Your task to perform on an android device: check android version Image 0: 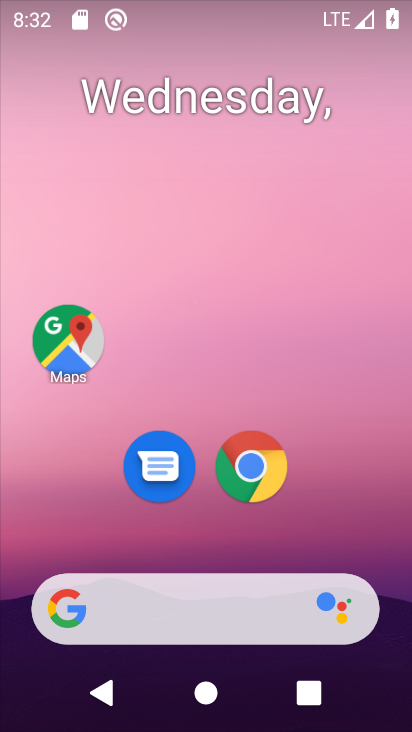
Step 0: drag from (221, 690) to (221, 144)
Your task to perform on an android device: check android version Image 1: 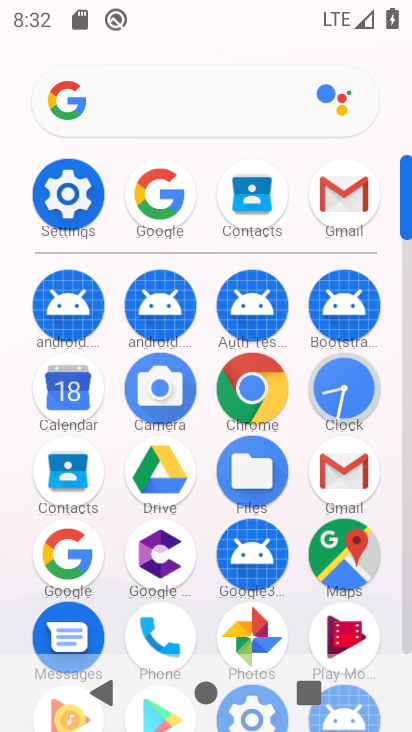
Step 1: click (69, 182)
Your task to perform on an android device: check android version Image 2: 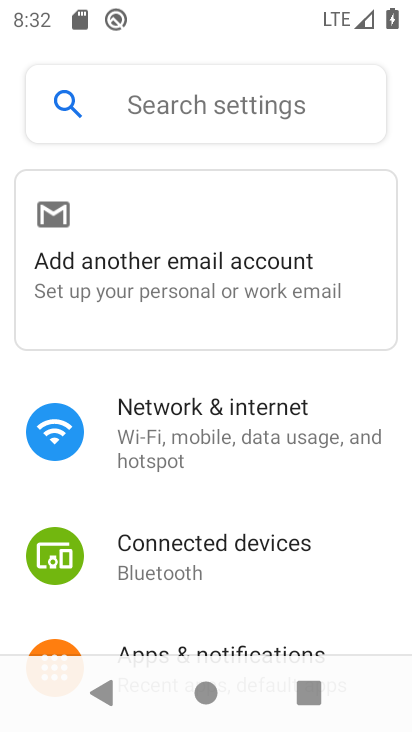
Step 2: drag from (233, 607) to (227, 272)
Your task to perform on an android device: check android version Image 3: 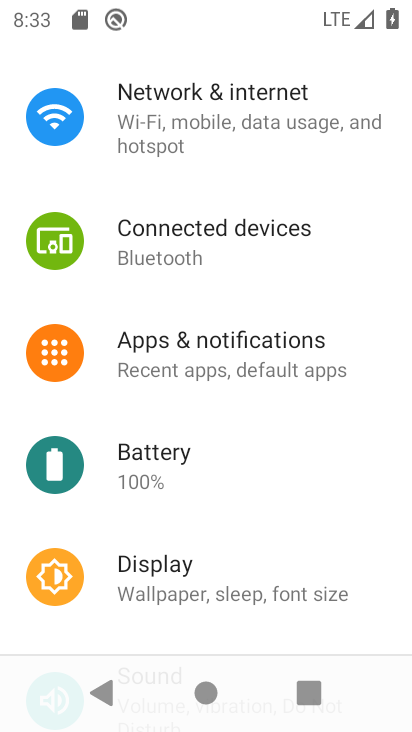
Step 3: drag from (263, 574) to (260, 279)
Your task to perform on an android device: check android version Image 4: 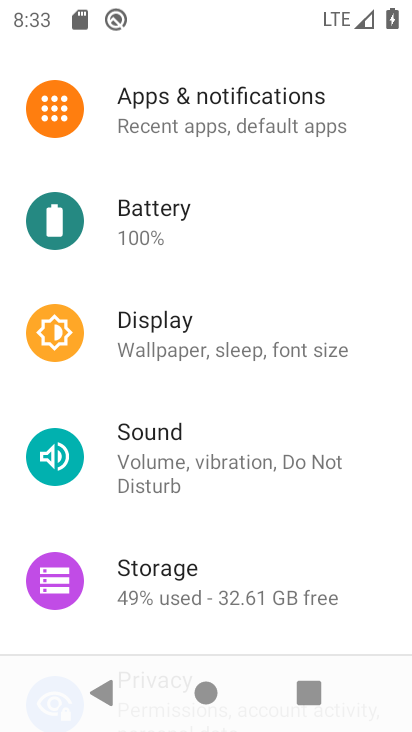
Step 4: drag from (227, 616) to (230, 203)
Your task to perform on an android device: check android version Image 5: 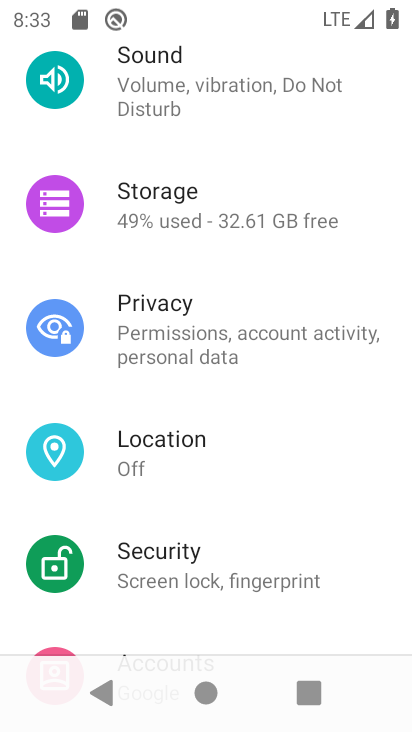
Step 5: drag from (192, 618) to (192, 257)
Your task to perform on an android device: check android version Image 6: 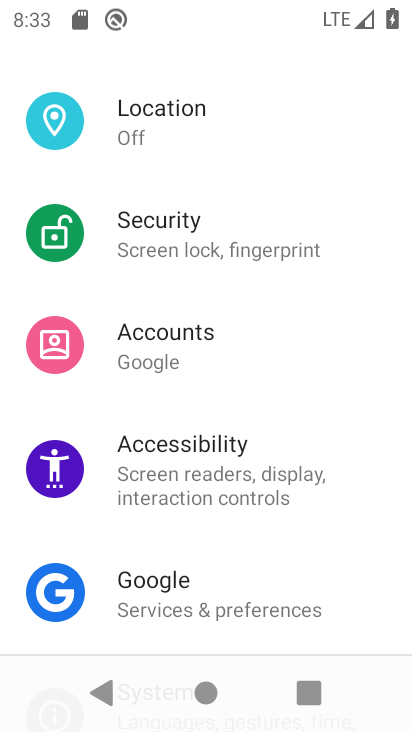
Step 6: drag from (184, 593) to (194, 224)
Your task to perform on an android device: check android version Image 7: 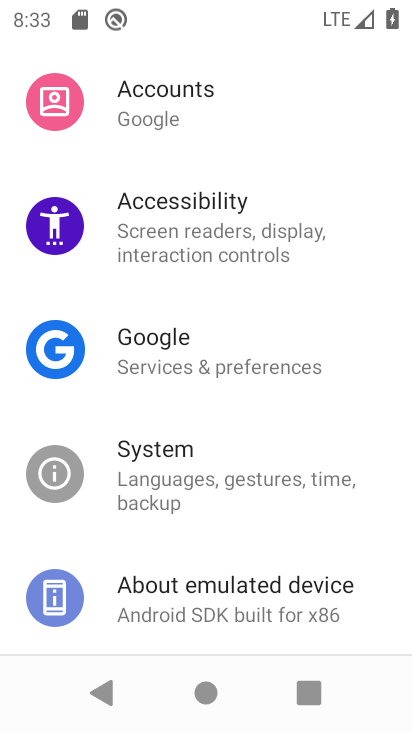
Step 7: drag from (203, 618) to (201, 233)
Your task to perform on an android device: check android version Image 8: 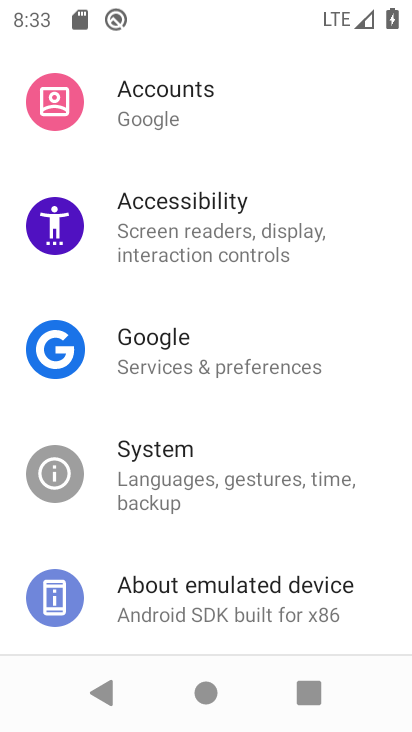
Step 8: drag from (196, 638) to (198, 224)
Your task to perform on an android device: check android version Image 9: 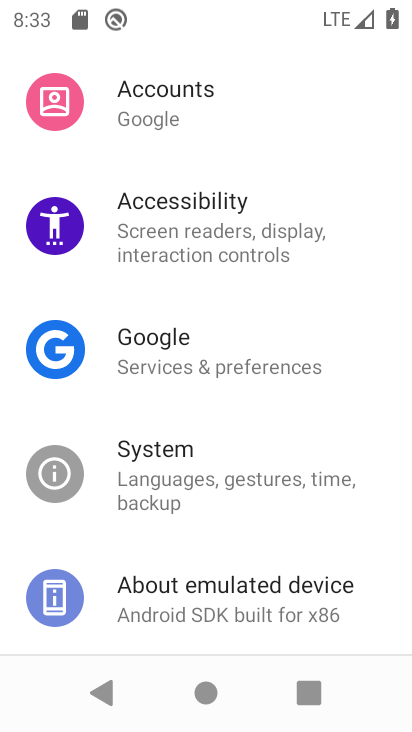
Step 9: click (208, 591)
Your task to perform on an android device: check android version Image 10: 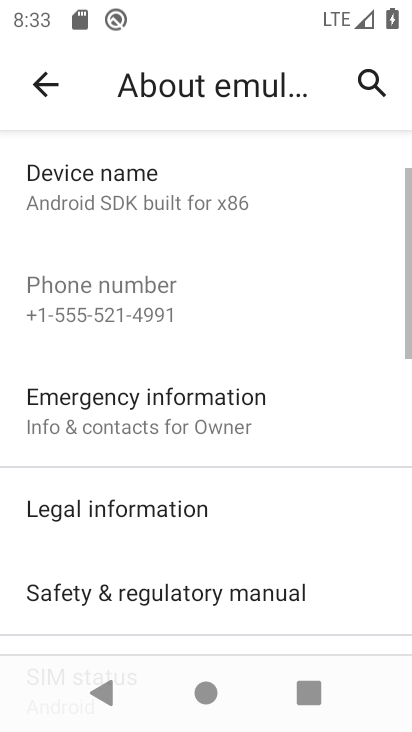
Step 10: drag from (220, 617) to (203, 236)
Your task to perform on an android device: check android version Image 11: 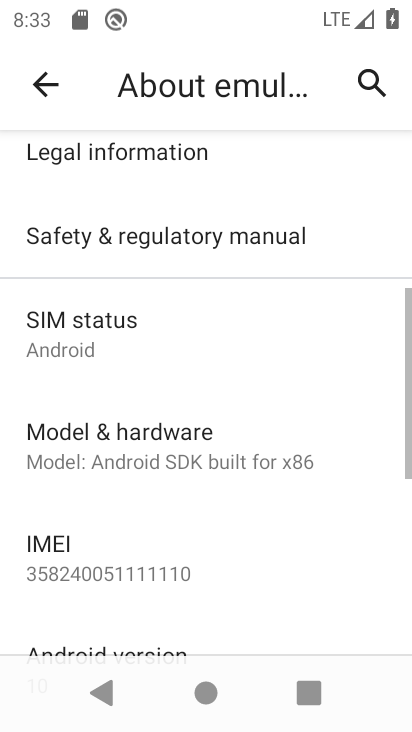
Step 11: drag from (182, 597) to (182, 184)
Your task to perform on an android device: check android version Image 12: 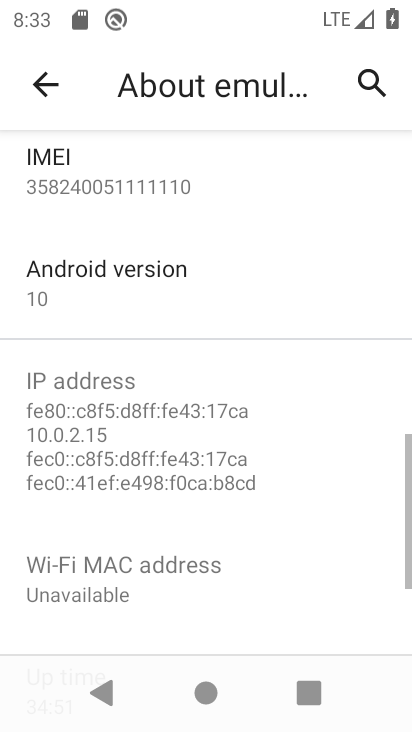
Step 12: click (125, 271)
Your task to perform on an android device: check android version Image 13: 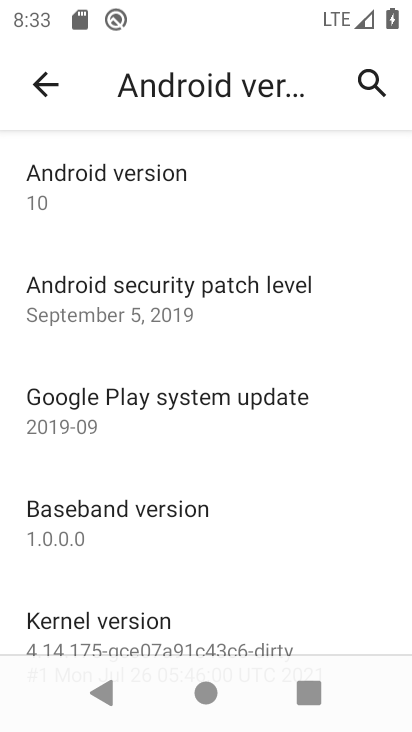
Step 13: task complete